Your task to perform on an android device: turn off translation in the chrome app Image 0: 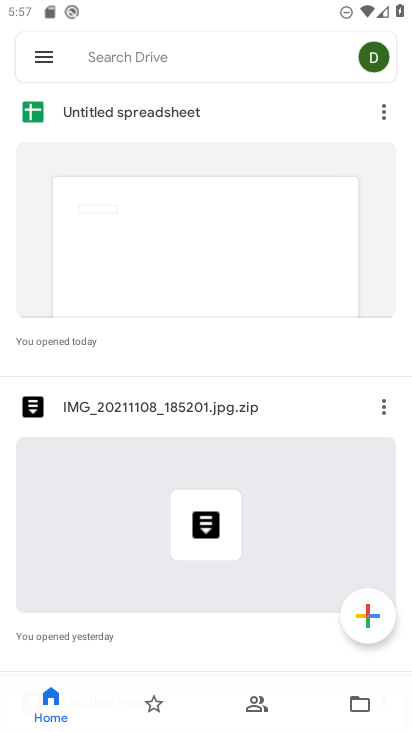
Step 0: press home button
Your task to perform on an android device: turn off translation in the chrome app Image 1: 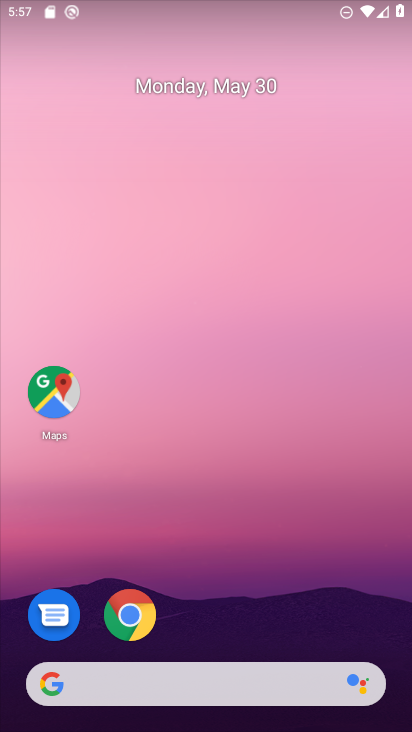
Step 1: click (138, 618)
Your task to perform on an android device: turn off translation in the chrome app Image 2: 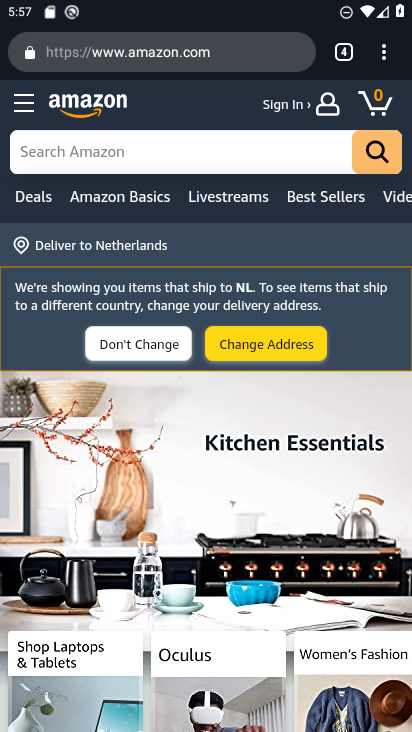
Step 2: click (394, 48)
Your task to perform on an android device: turn off translation in the chrome app Image 3: 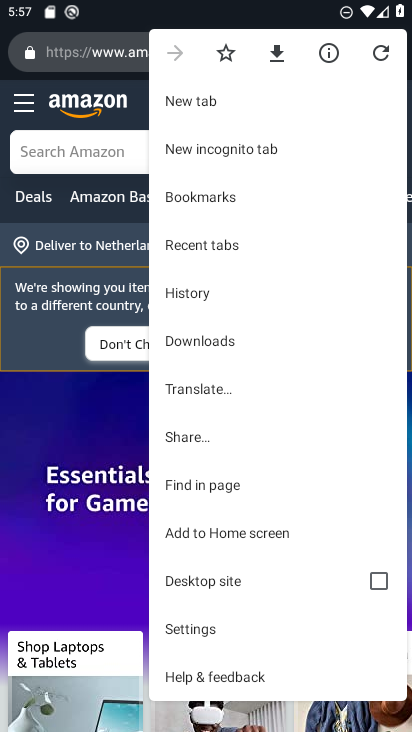
Step 3: click (192, 622)
Your task to perform on an android device: turn off translation in the chrome app Image 4: 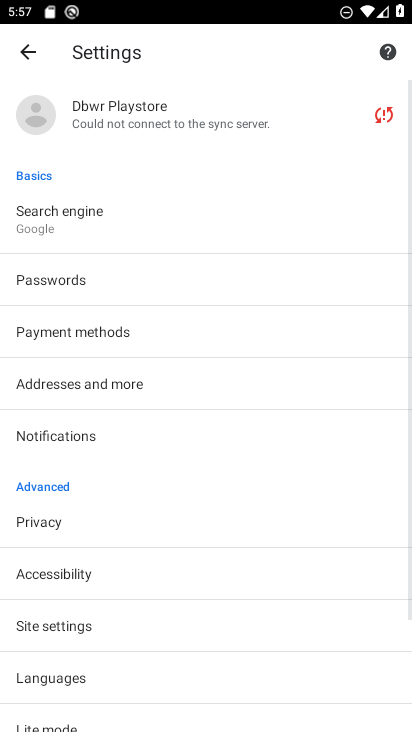
Step 4: click (107, 669)
Your task to perform on an android device: turn off translation in the chrome app Image 5: 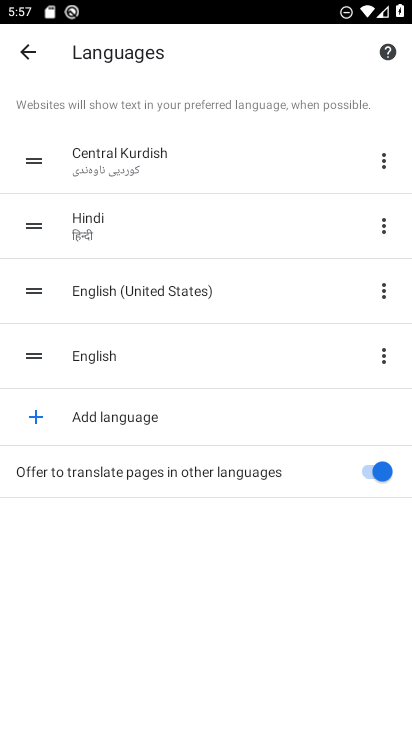
Step 5: click (383, 474)
Your task to perform on an android device: turn off translation in the chrome app Image 6: 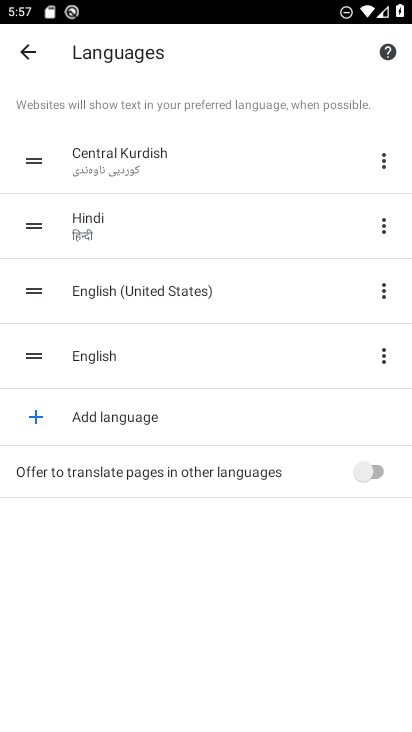
Step 6: task complete